Your task to perform on an android device: choose inbox layout in the gmail app Image 0: 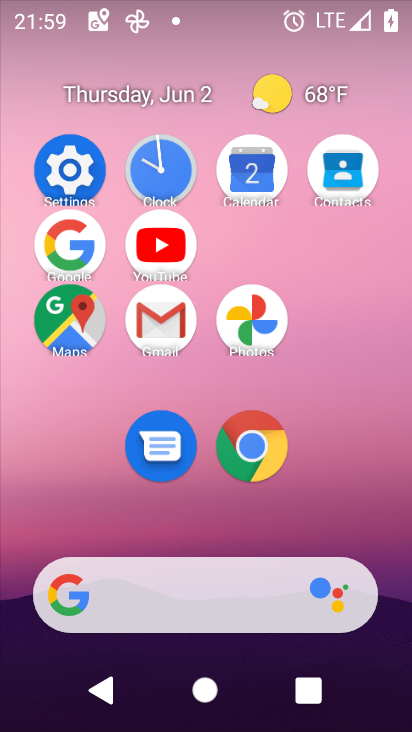
Step 0: click (177, 321)
Your task to perform on an android device: choose inbox layout in the gmail app Image 1: 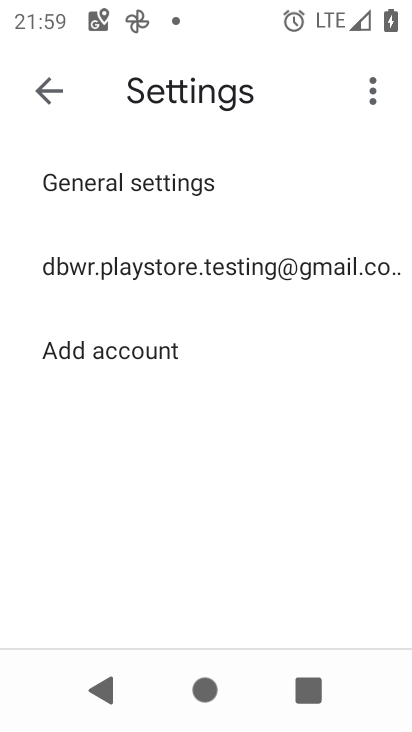
Step 1: click (259, 257)
Your task to perform on an android device: choose inbox layout in the gmail app Image 2: 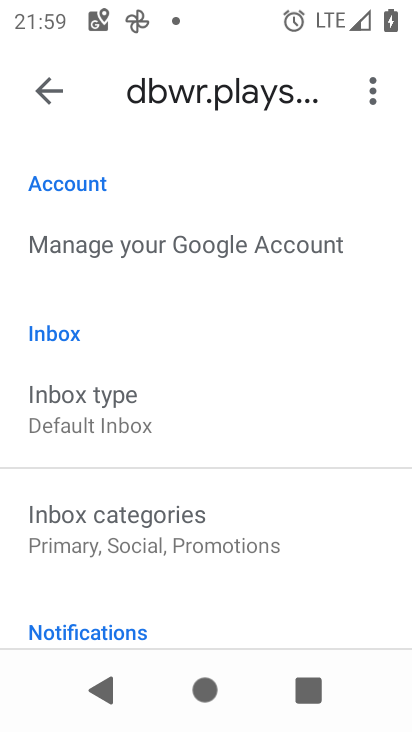
Step 2: click (202, 411)
Your task to perform on an android device: choose inbox layout in the gmail app Image 3: 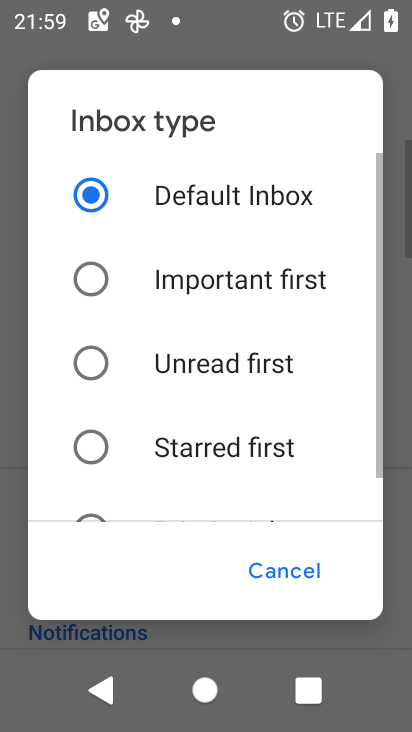
Step 3: task complete